Your task to perform on an android device: Search for vegetarian restaurants on Maps Image 0: 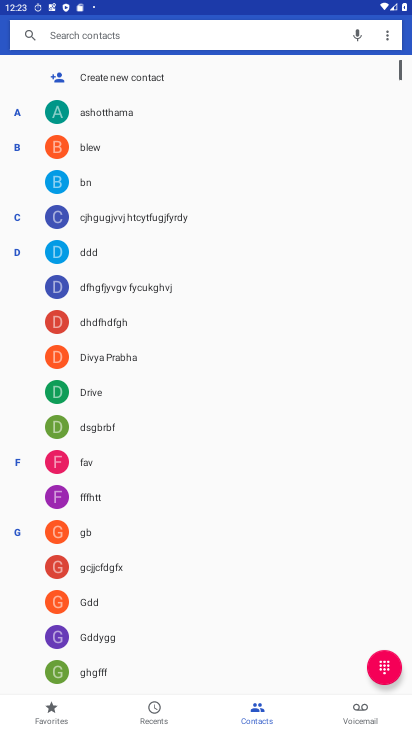
Step 0: press home button
Your task to perform on an android device: Search for vegetarian restaurants on Maps Image 1: 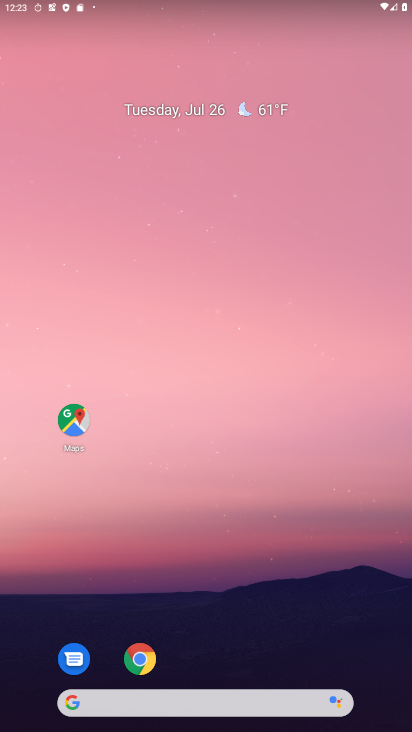
Step 1: click (71, 423)
Your task to perform on an android device: Search for vegetarian restaurants on Maps Image 2: 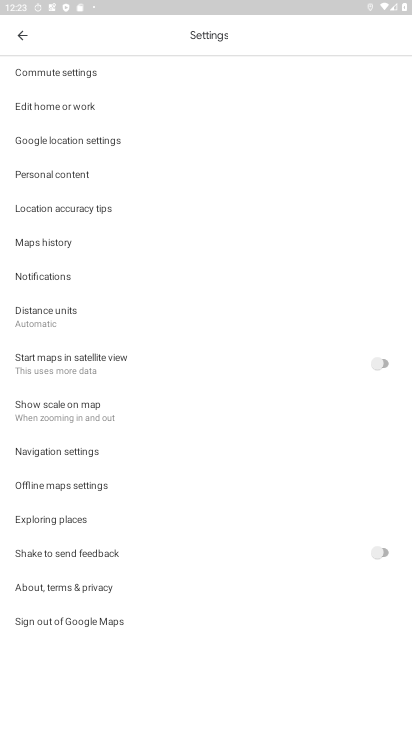
Step 2: click (26, 36)
Your task to perform on an android device: Search for vegetarian restaurants on Maps Image 3: 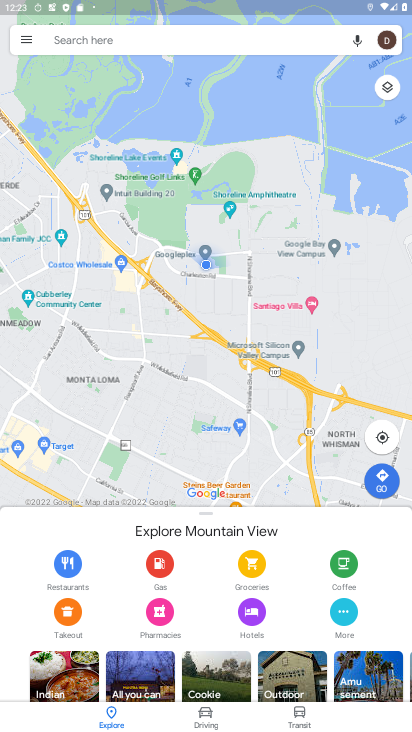
Step 3: click (53, 41)
Your task to perform on an android device: Search for vegetarian restaurants on Maps Image 4: 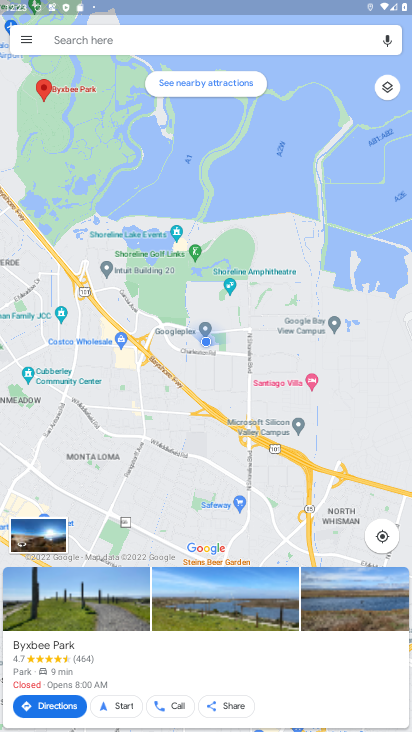
Step 4: click (64, 34)
Your task to perform on an android device: Search for vegetarian restaurants on Maps Image 5: 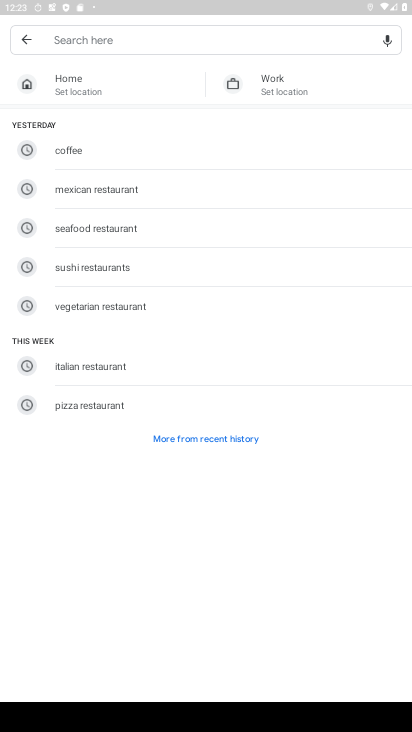
Step 5: click (91, 311)
Your task to perform on an android device: Search for vegetarian restaurants on Maps Image 6: 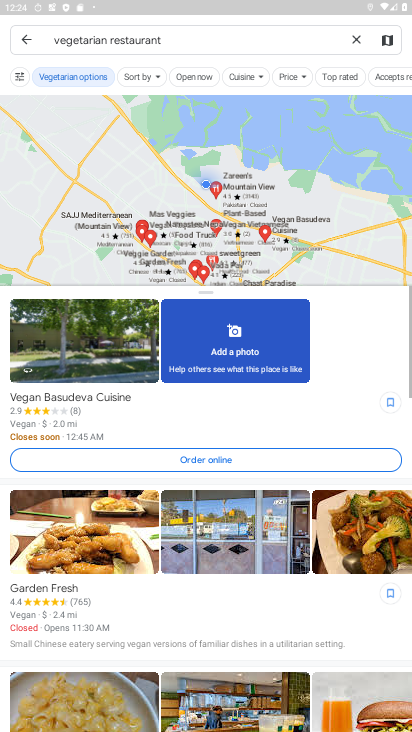
Step 6: task complete